Your task to perform on an android device: Is it going to rain this weekend? Image 0: 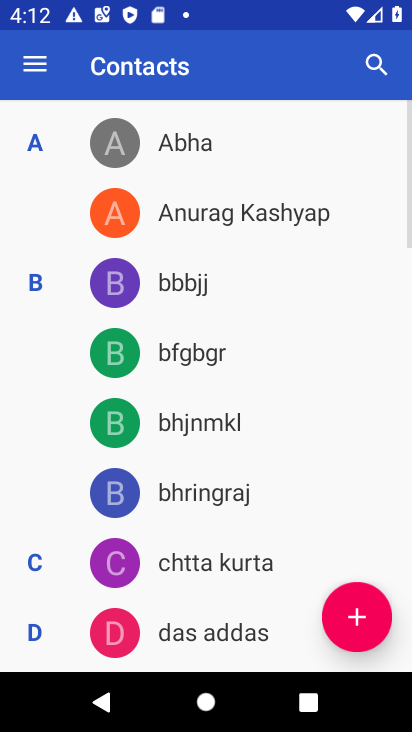
Step 0: press home button
Your task to perform on an android device: Is it going to rain this weekend? Image 1: 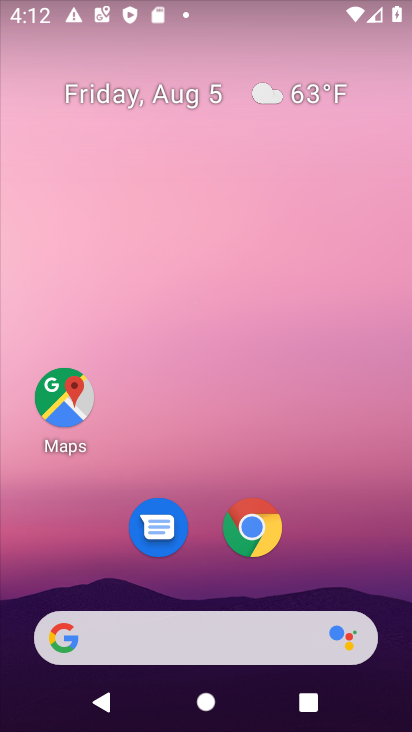
Step 1: drag from (207, 600) to (208, 77)
Your task to perform on an android device: Is it going to rain this weekend? Image 2: 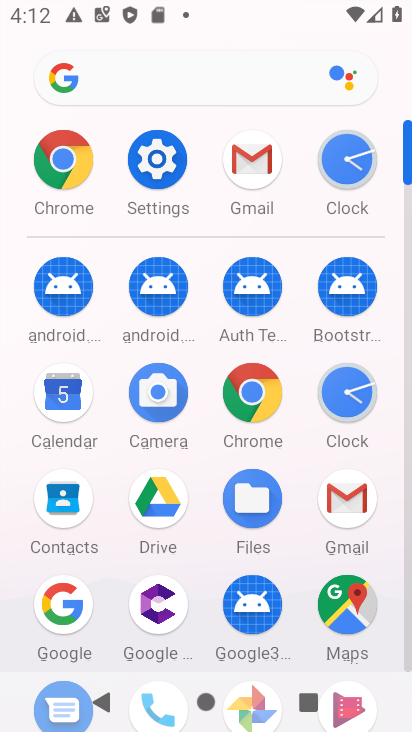
Step 2: click (56, 602)
Your task to perform on an android device: Is it going to rain this weekend? Image 3: 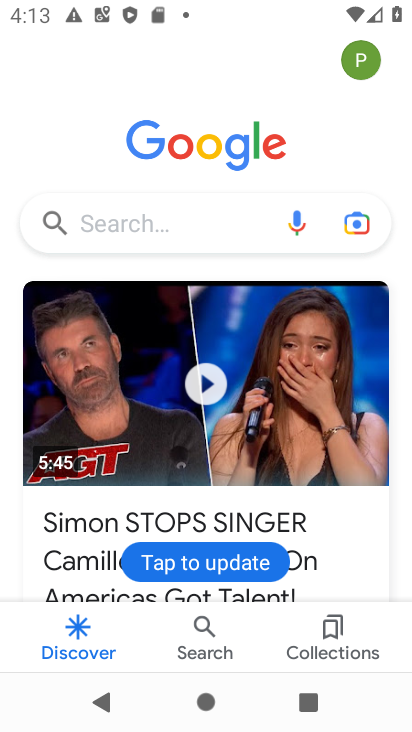
Step 3: click (177, 235)
Your task to perform on an android device: Is it going to rain this weekend? Image 4: 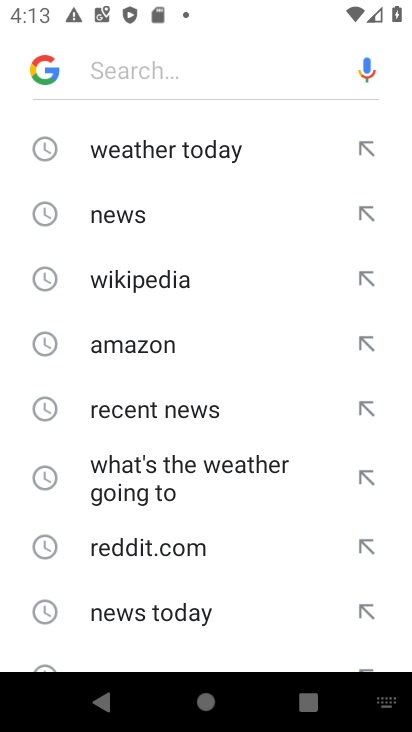
Step 4: click (133, 159)
Your task to perform on an android device: Is it going to rain this weekend? Image 5: 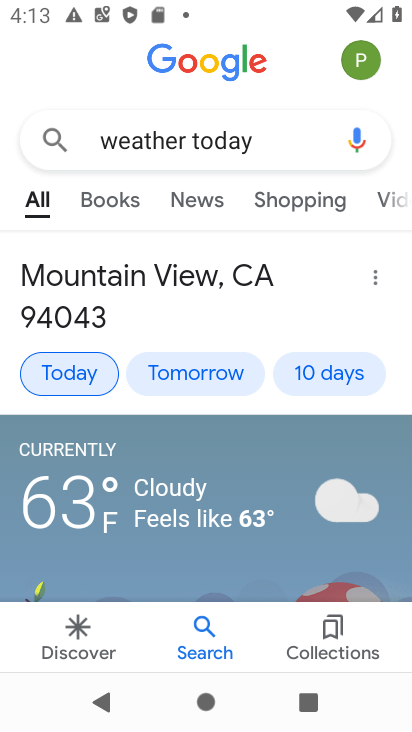
Step 5: click (329, 370)
Your task to perform on an android device: Is it going to rain this weekend? Image 6: 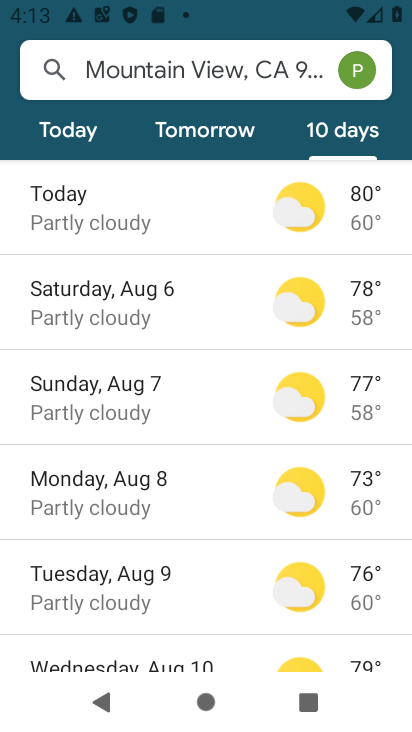
Step 6: click (101, 310)
Your task to perform on an android device: Is it going to rain this weekend? Image 7: 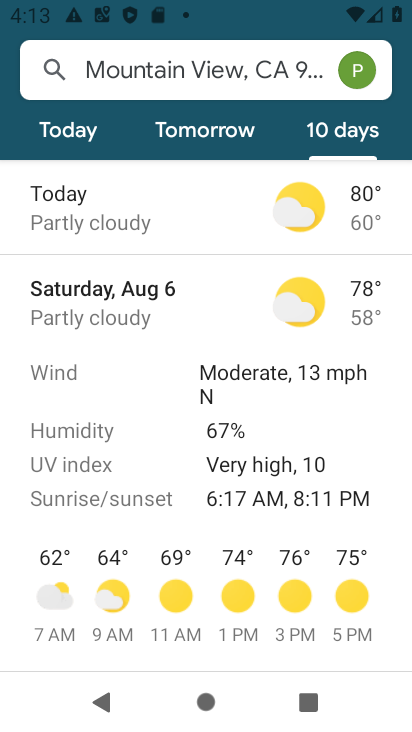
Step 7: task complete